Your task to perform on an android device: change the clock display to show seconds Image 0: 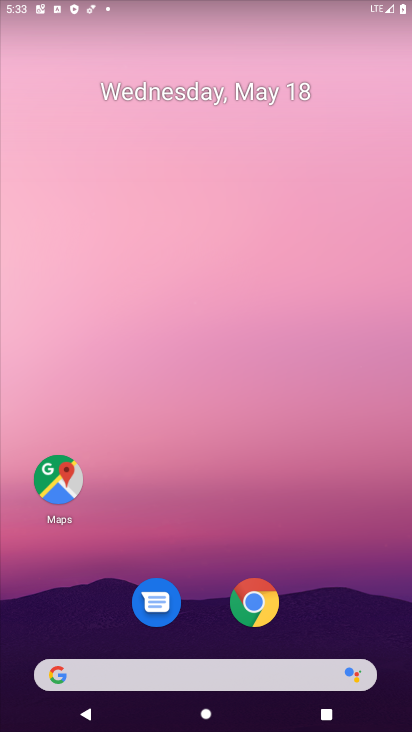
Step 0: drag from (325, 623) to (312, 16)
Your task to perform on an android device: change the clock display to show seconds Image 1: 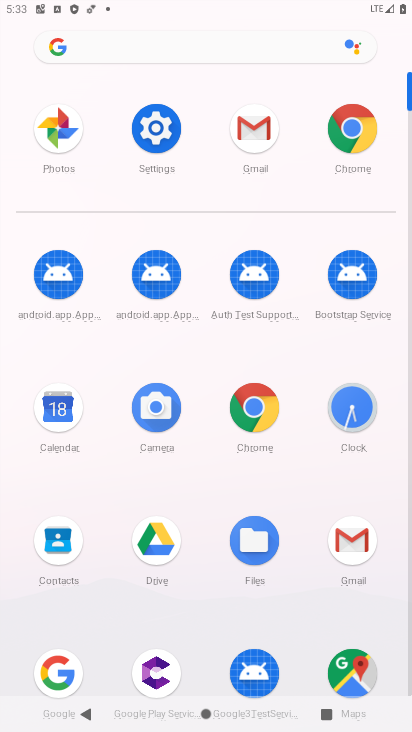
Step 1: click (140, 136)
Your task to perform on an android device: change the clock display to show seconds Image 2: 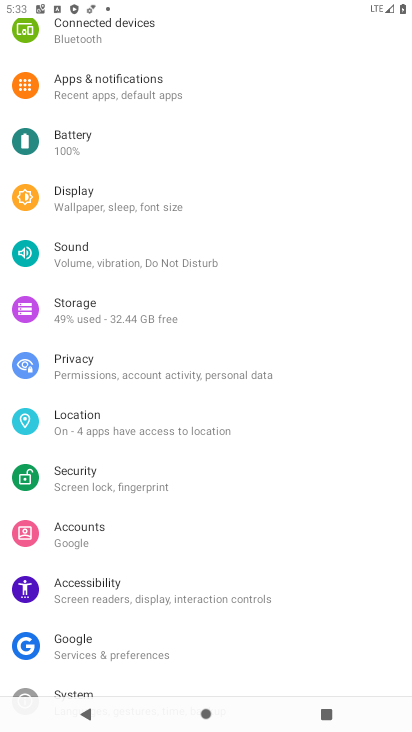
Step 2: drag from (221, 166) to (269, 604)
Your task to perform on an android device: change the clock display to show seconds Image 3: 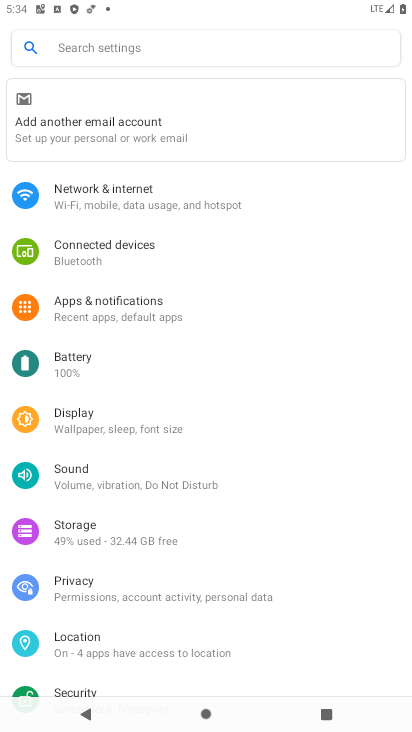
Step 3: press home button
Your task to perform on an android device: change the clock display to show seconds Image 4: 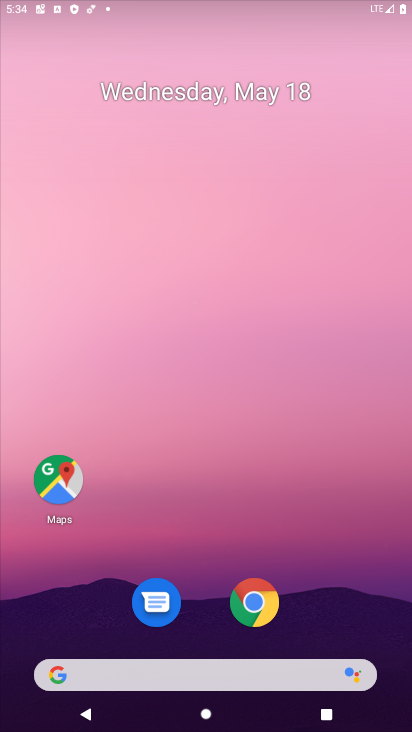
Step 4: drag from (193, 685) to (251, 21)
Your task to perform on an android device: change the clock display to show seconds Image 5: 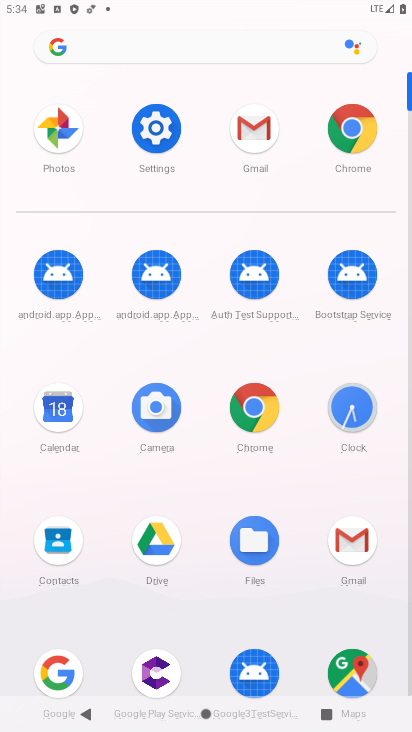
Step 5: click (356, 427)
Your task to perform on an android device: change the clock display to show seconds Image 6: 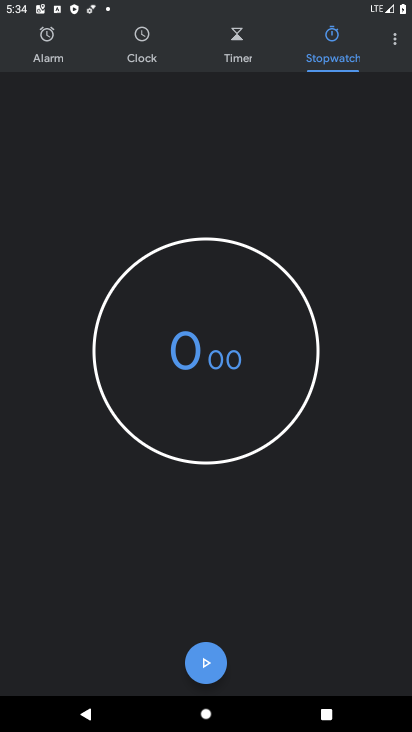
Step 6: click (394, 49)
Your task to perform on an android device: change the clock display to show seconds Image 7: 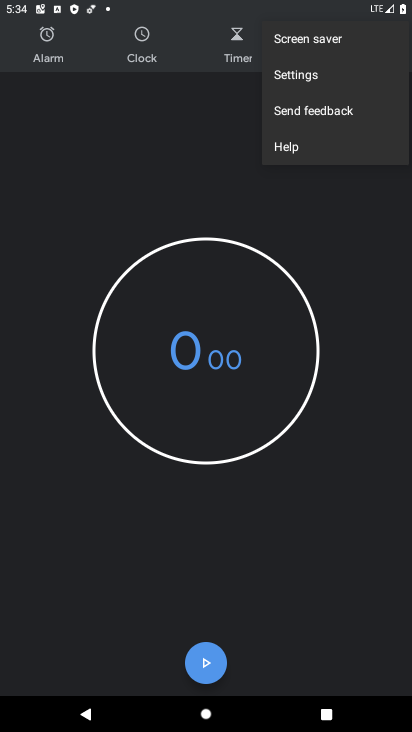
Step 7: click (342, 75)
Your task to perform on an android device: change the clock display to show seconds Image 8: 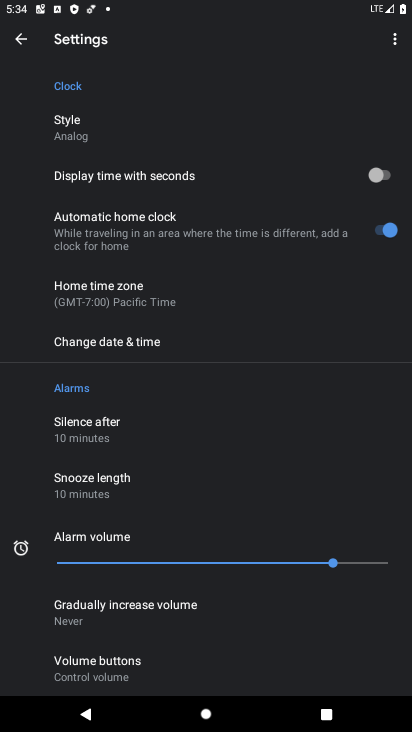
Step 8: click (386, 170)
Your task to perform on an android device: change the clock display to show seconds Image 9: 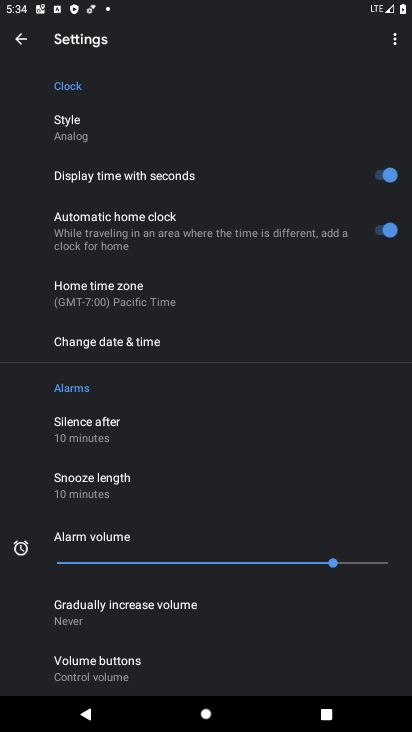
Step 9: task complete